Your task to perform on an android device: What is the speed of a jet? Image 0: 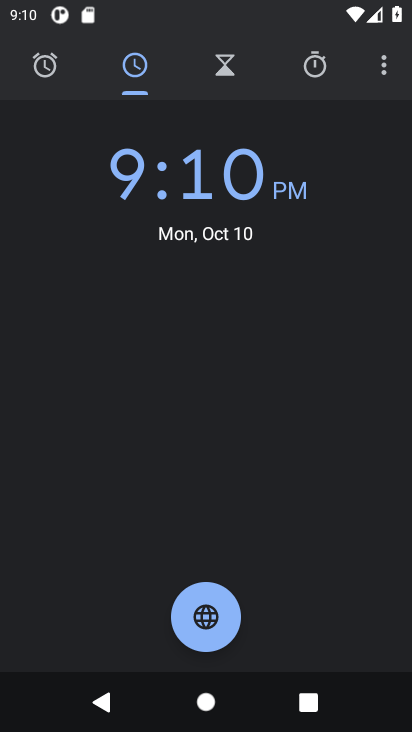
Step 0: press home button
Your task to perform on an android device: What is the speed of a jet? Image 1: 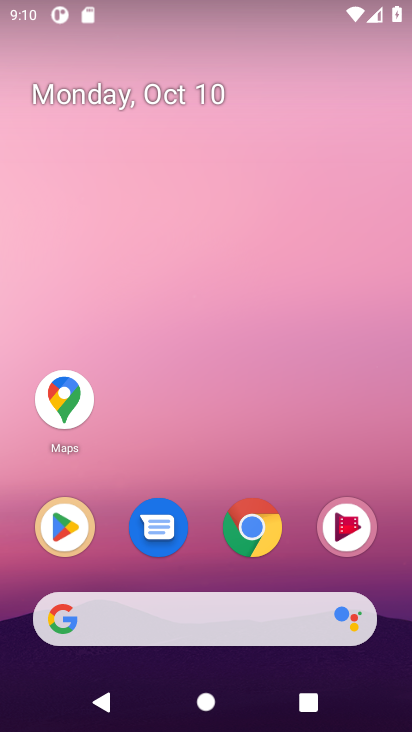
Step 1: click (250, 534)
Your task to perform on an android device: What is the speed of a jet? Image 2: 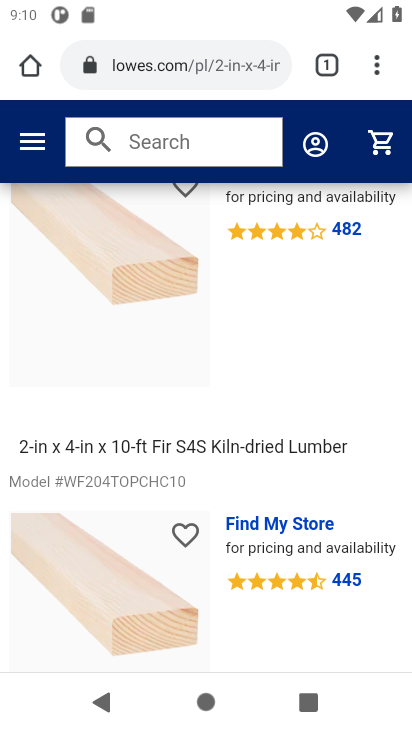
Step 2: click (183, 59)
Your task to perform on an android device: What is the speed of a jet? Image 3: 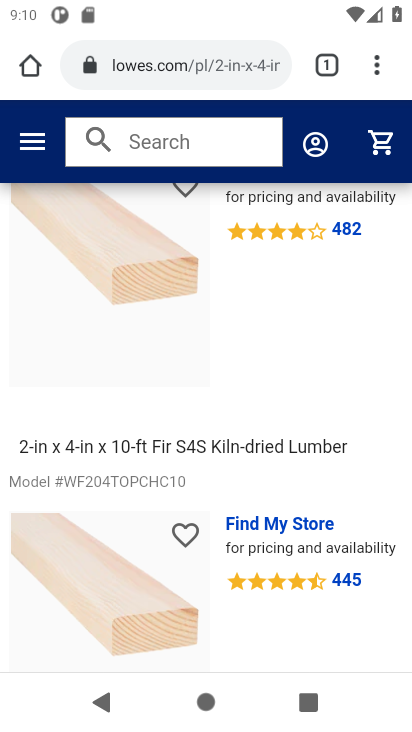
Step 3: click (183, 59)
Your task to perform on an android device: What is the speed of a jet? Image 4: 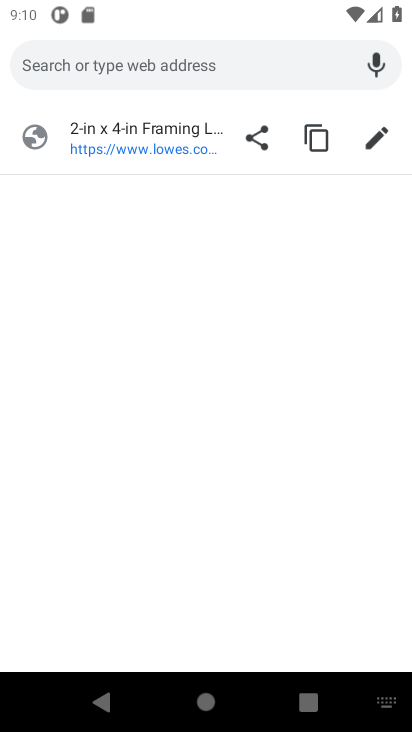
Step 4: task complete